Your task to perform on an android device: Open calendar and show me the third week of next month Image 0: 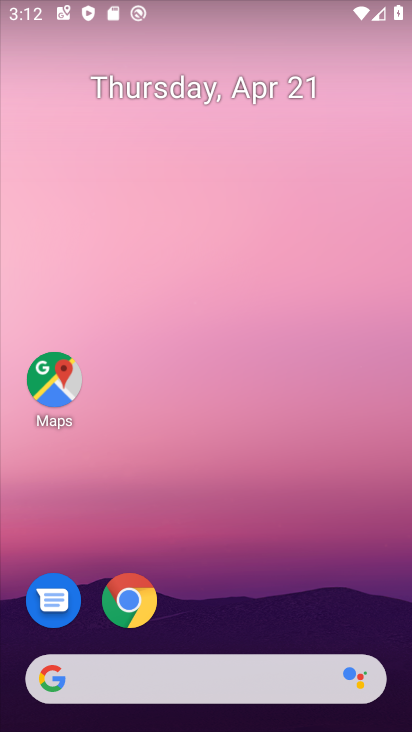
Step 0: drag from (224, 609) to (239, 52)
Your task to perform on an android device: Open calendar and show me the third week of next month Image 1: 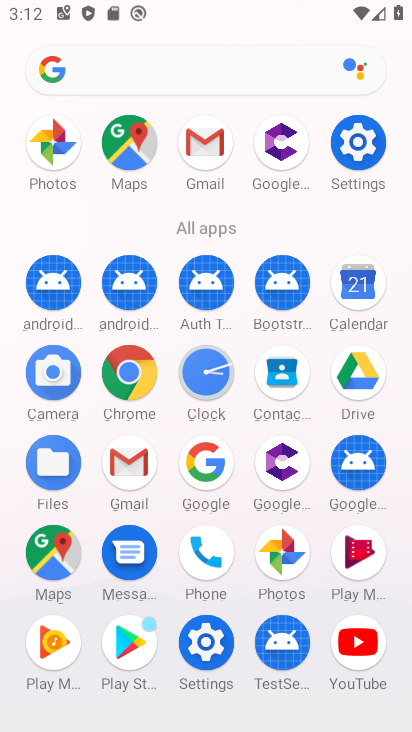
Step 1: click (359, 291)
Your task to perform on an android device: Open calendar and show me the third week of next month Image 2: 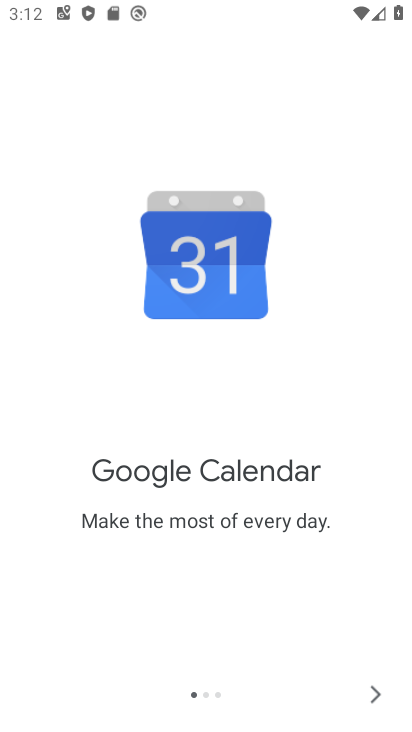
Step 2: click (377, 693)
Your task to perform on an android device: Open calendar and show me the third week of next month Image 3: 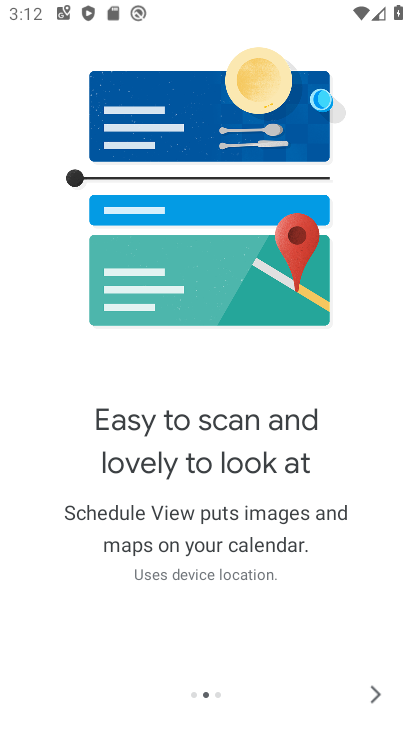
Step 3: click (377, 693)
Your task to perform on an android device: Open calendar and show me the third week of next month Image 4: 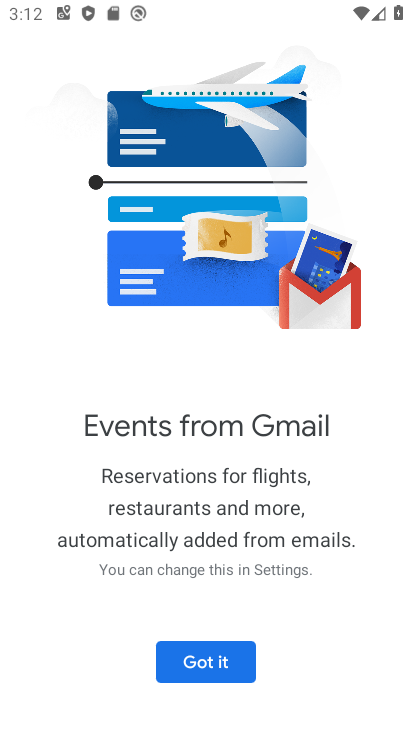
Step 4: click (212, 666)
Your task to perform on an android device: Open calendar and show me the third week of next month Image 5: 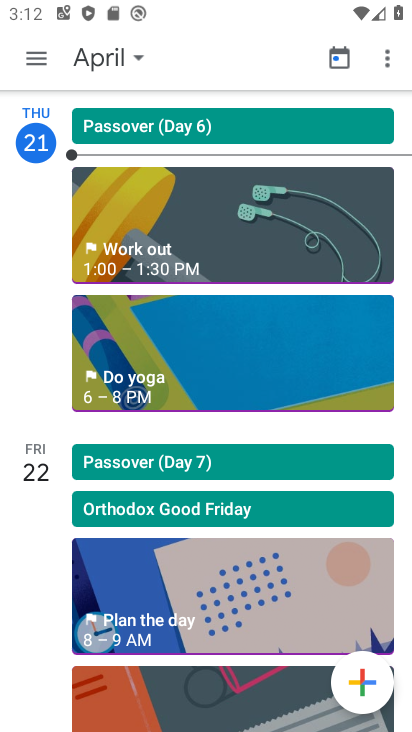
Step 5: click (135, 58)
Your task to perform on an android device: Open calendar and show me the third week of next month Image 6: 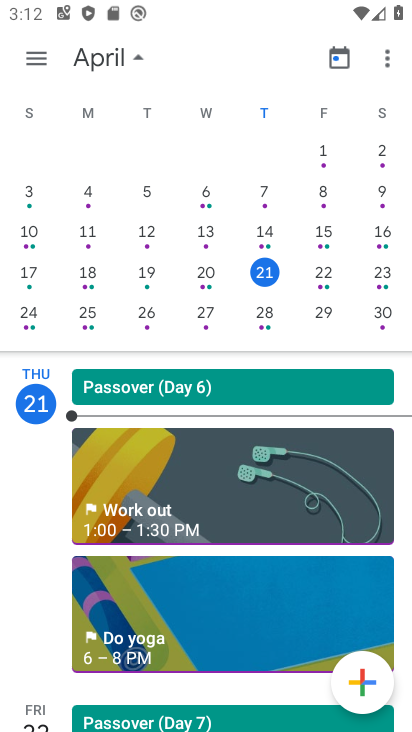
Step 6: drag from (362, 256) to (2, 239)
Your task to perform on an android device: Open calendar and show me the third week of next month Image 7: 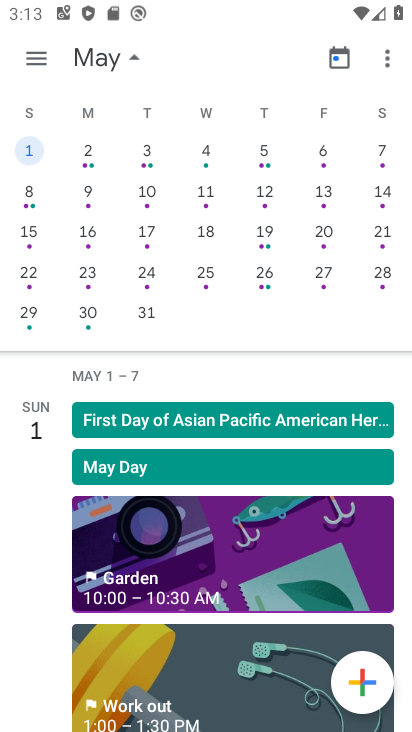
Step 7: click (92, 230)
Your task to perform on an android device: Open calendar and show me the third week of next month Image 8: 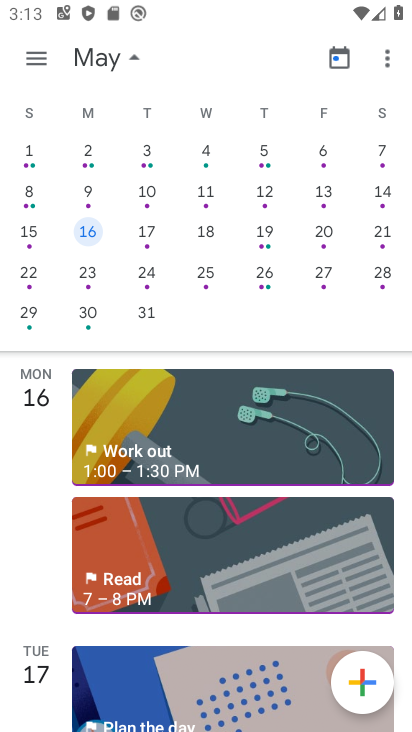
Step 8: click (40, 63)
Your task to perform on an android device: Open calendar and show me the third week of next month Image 9: 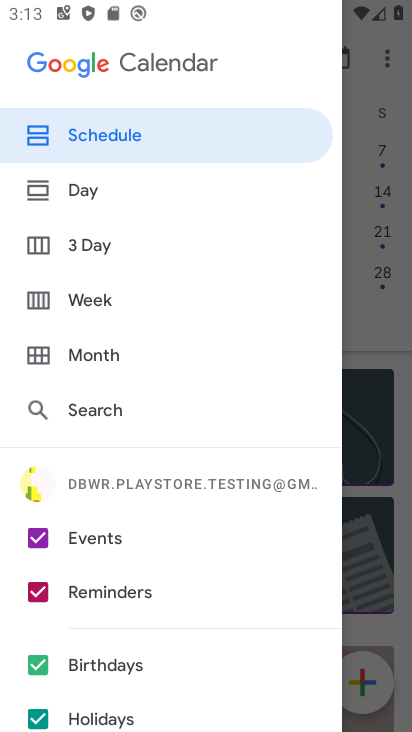
Step 9: click (101, 296)
Your task to perform on an android device: Open calendar and show me the third week of next month Image 10: 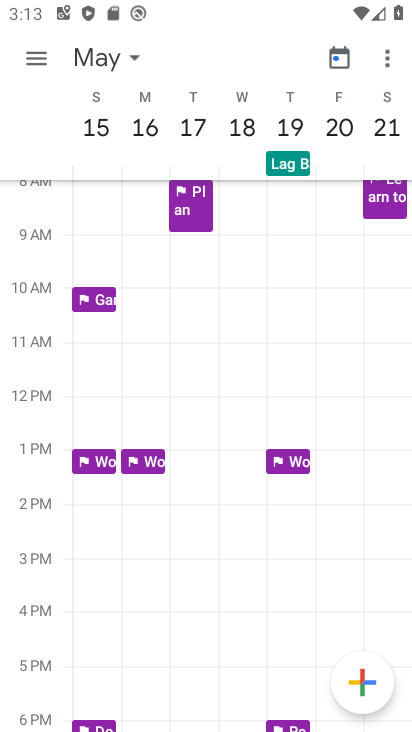
Step 10: task complete